Your task to perform on an android device: set the stopwatch Image 0: 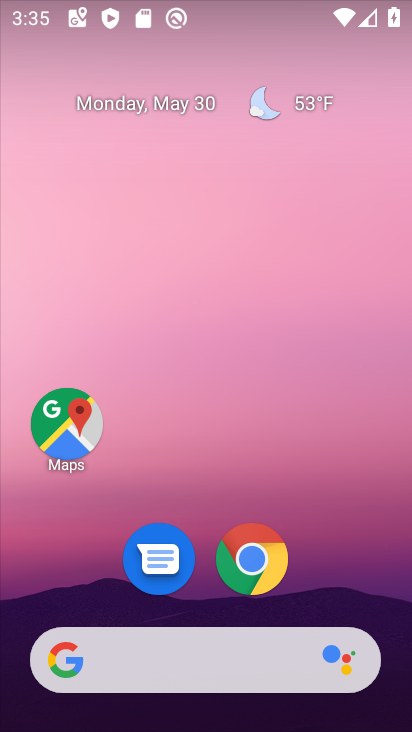
Step 0: drag from (206, 727) to (207, 107)
Your task to perform on an android device: set the stopwatch Image 1: 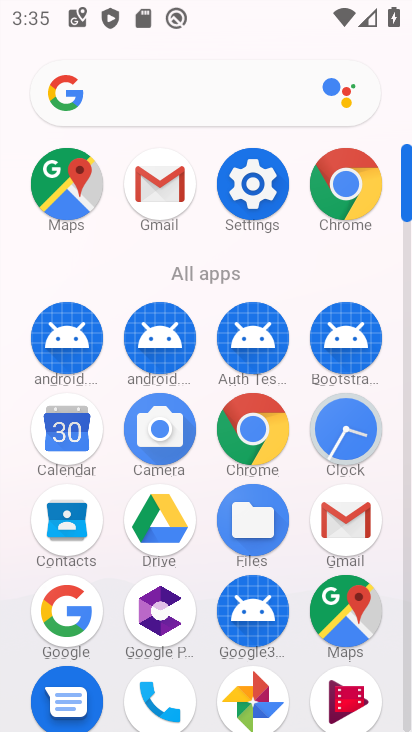
Step 1: click (347, 425)
Your task to perform on an android device: set the stopwatch Image 2: 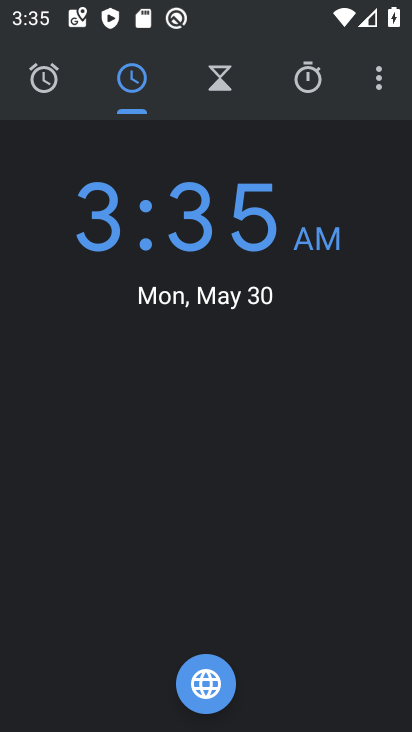
Step 2: click (307, 80)
Your task to perform on an android device: set the stopwatch Image 3: 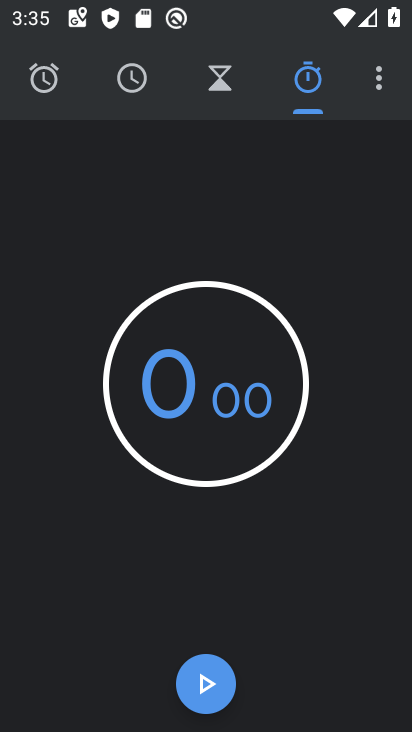
Step 3: click (196, 397)
Your task to perform on an android device: set the stopwatch Image 4: 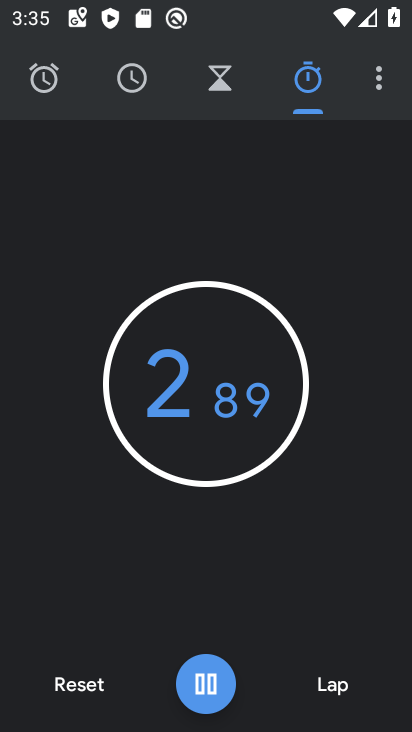
Step 4: type "777"
Your task to perform on an android device: set the stopwatch Image 5: 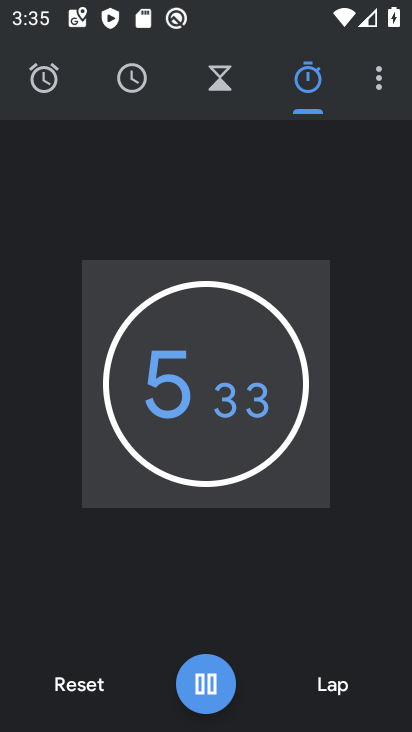
Step 5: task complete